Your task to perform on an android device: check data usage Image 0: 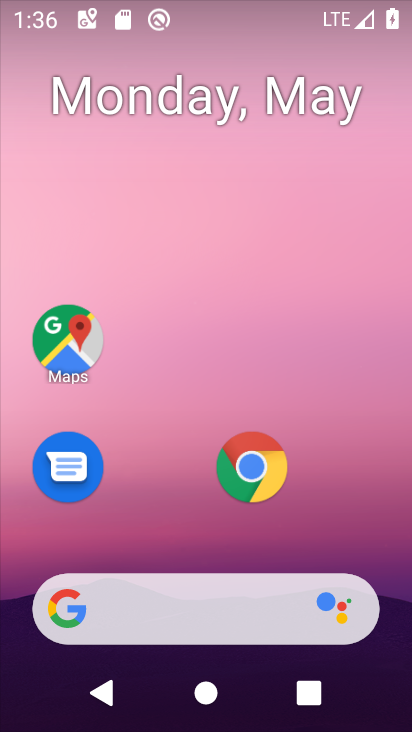
Step 0: drag from (200, 555) to (219, 180)
Your task to perform on an android device: check data usage Image 1: 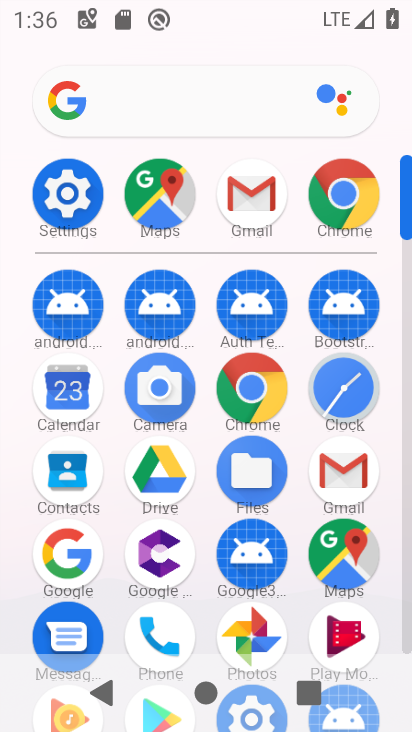
Step 1: click (64, 171)
Your task to perform on an android device: check data usage Image 2: 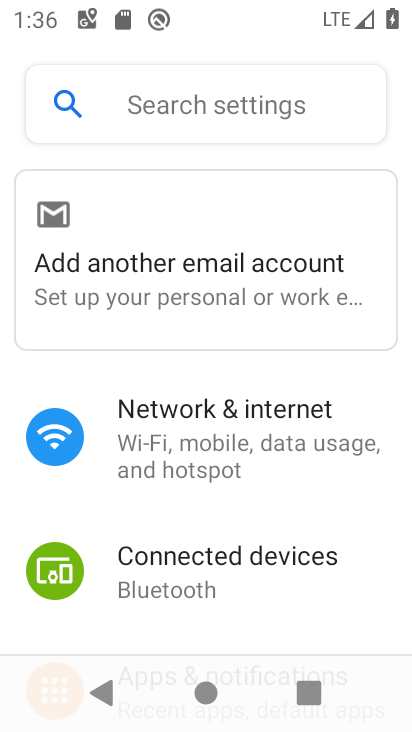
Step 2: drag from (221, 573) to (312, 155)
Your task to perform on an android device: check data usage Image 3: 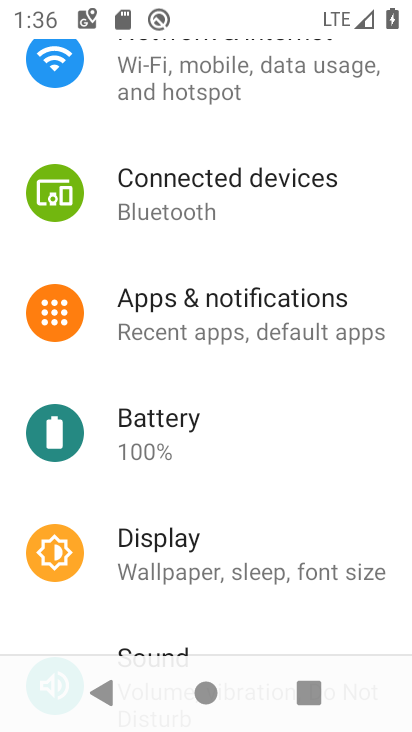
Step 3: drag from (307, 168) to (224, 443)
Your task to perform on an android device: check data usage Image 4: 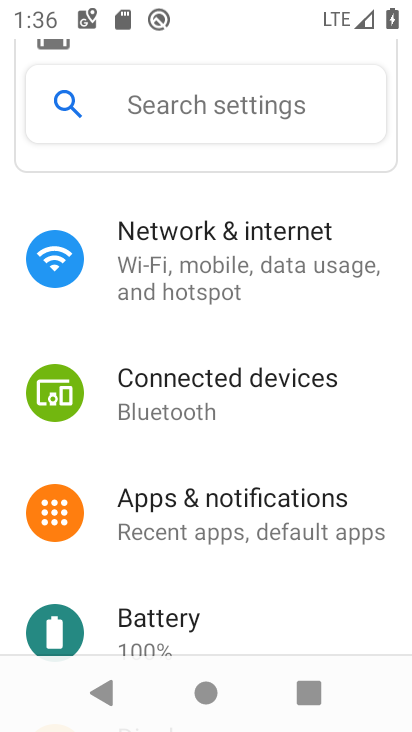
Step 4: click (238, 257)
Your task to perform on an android device: check data usage Image 5: 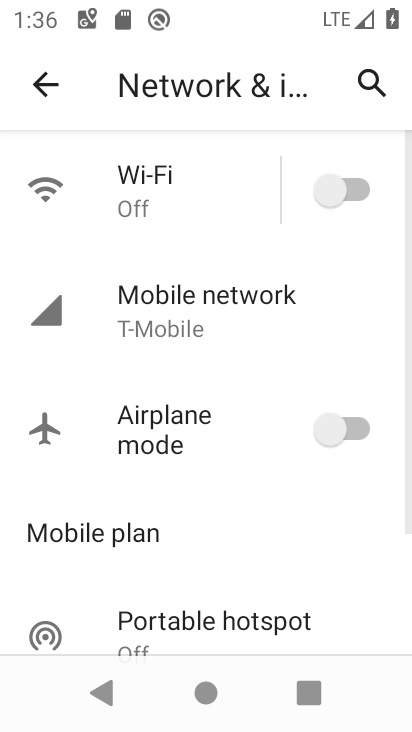
Step 5: click (212, 319)
Your task to perform on an android device: check data usage Image 6: 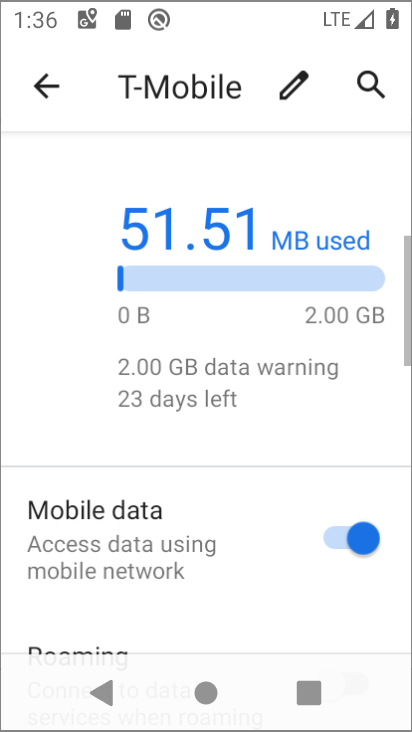
Step 6: task complete